Your task to perform on an android device: What's the news this morning? Image 0: 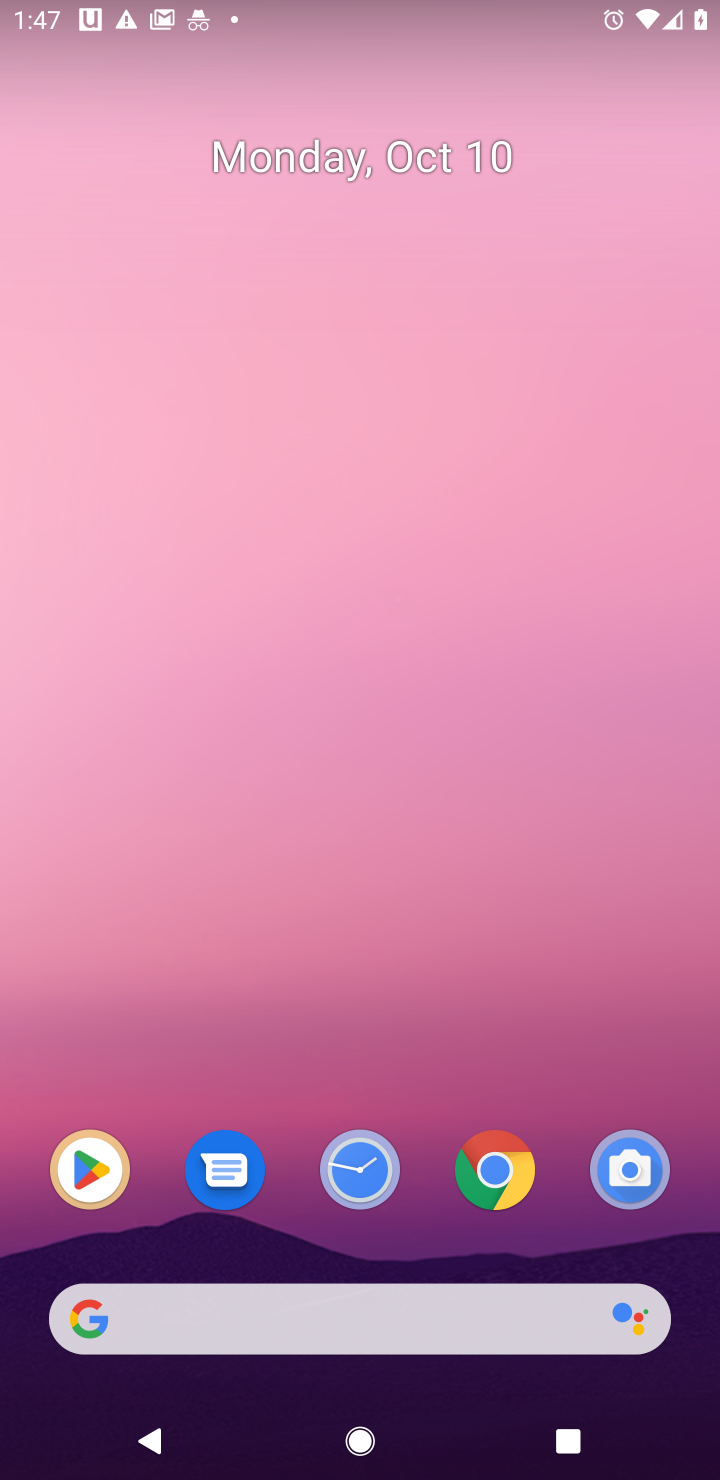
Step 0: click (492, 1176)
Your task to perform on an android device: What's the news this morning? Image 1: 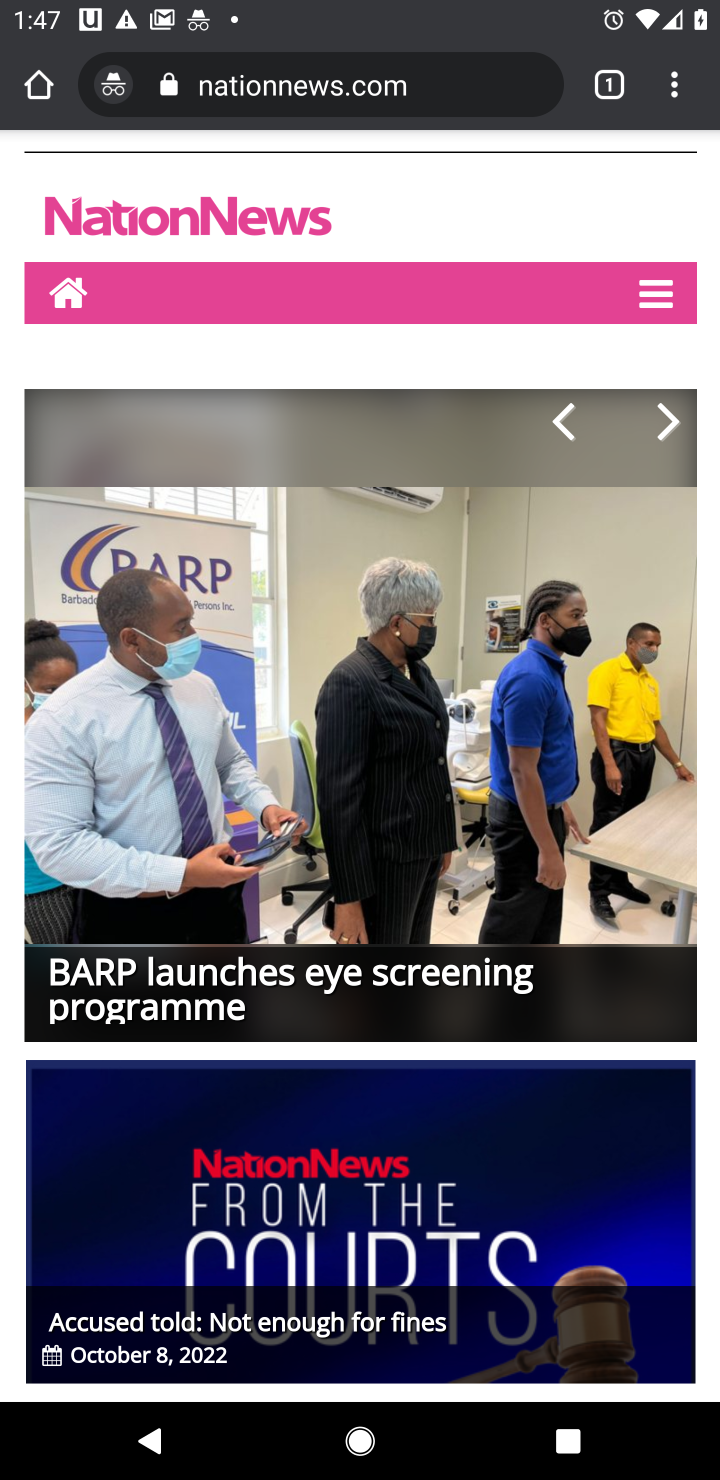
Step 1: click (385, 94)
Your task to perform on an android device: What's the news this morning? Image 2: 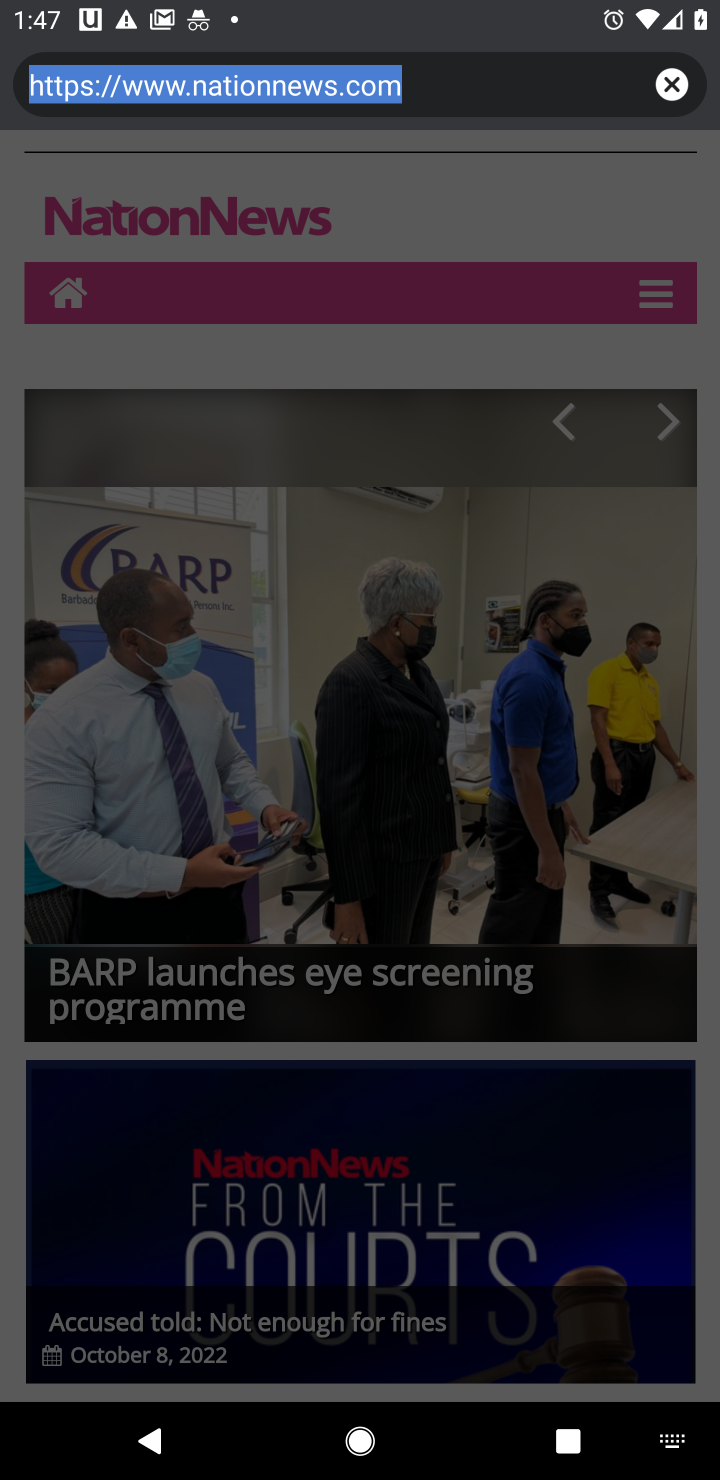
Step 2: click (672, 84)
Your task to perform on an android device: What's the news this morning? Image 3: 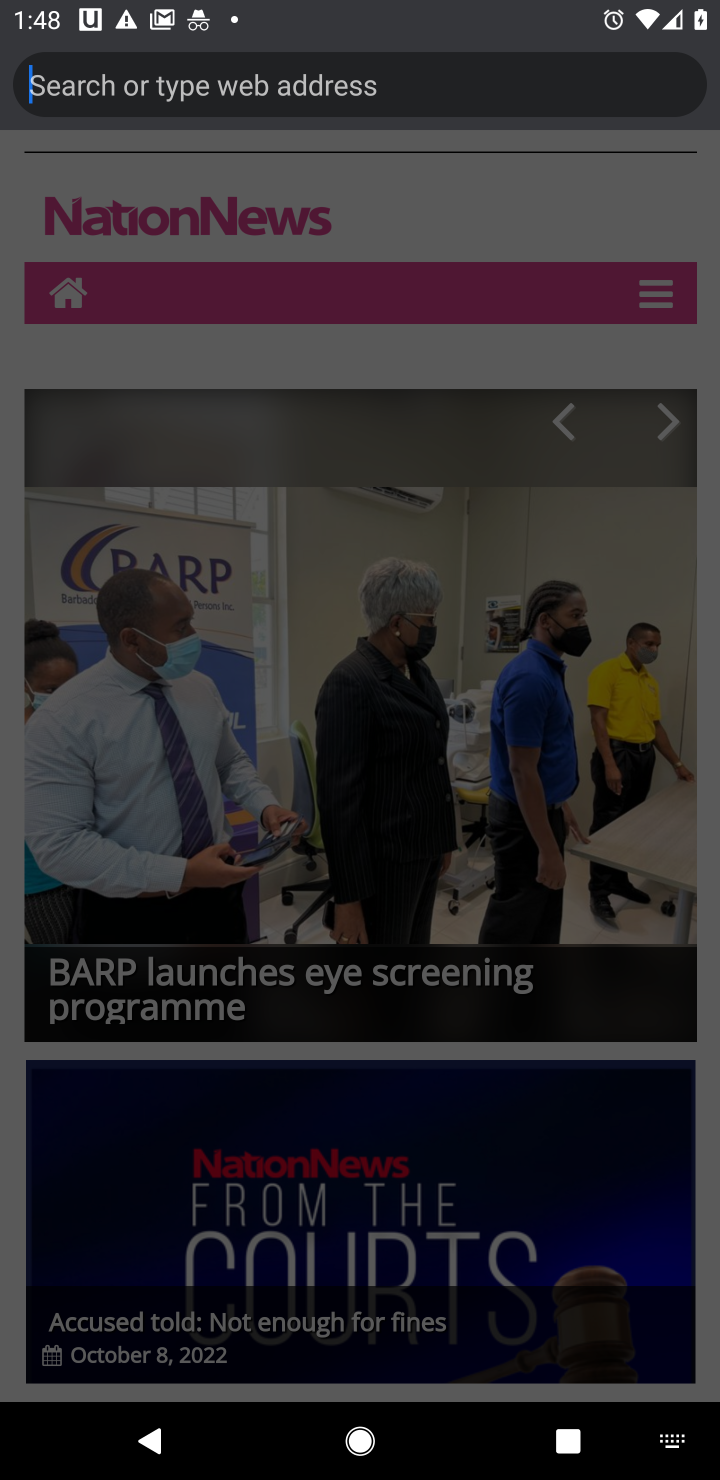
Step 3: type "news this morning"
Your task to perform on an android device: What's the news this morning? Image 4: 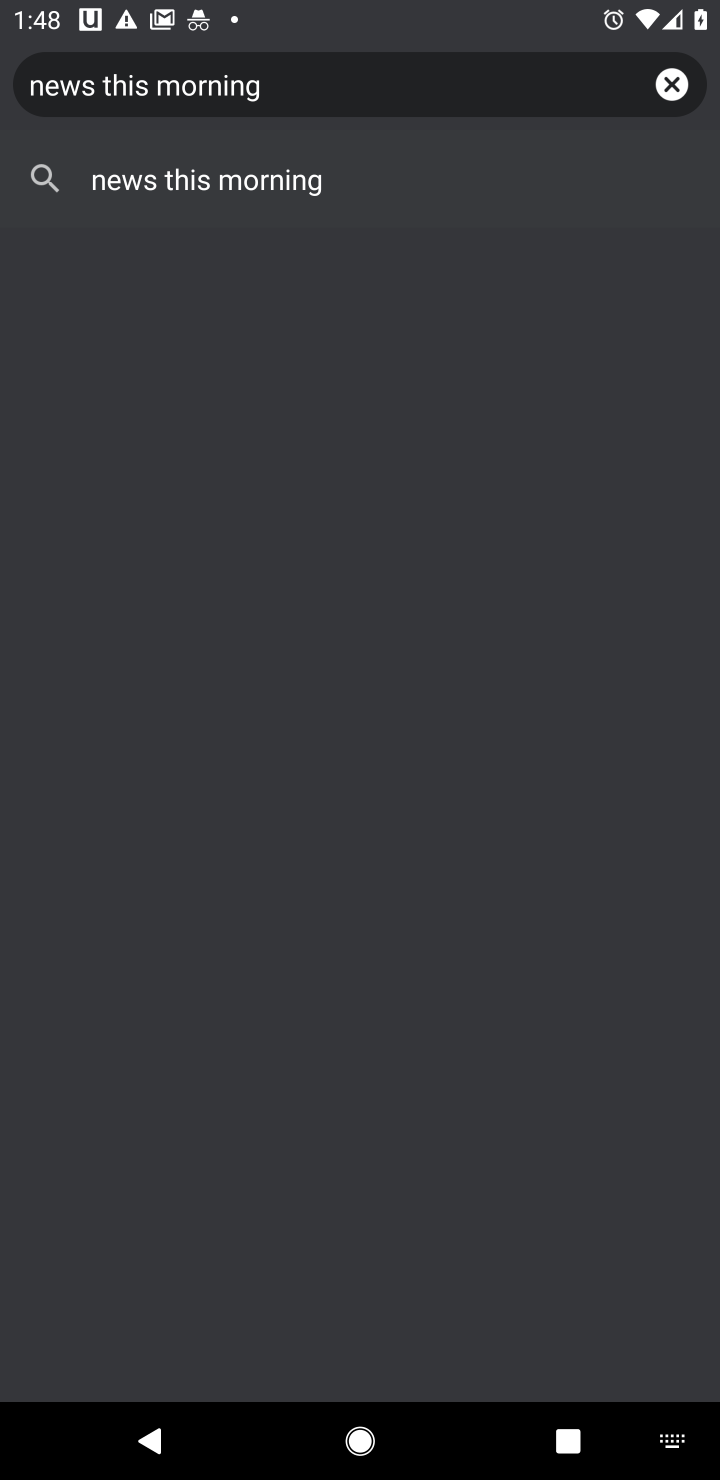
Step 4: click (269, 181)
Your task to perform on an android device: What's the news this morning? Image 5: 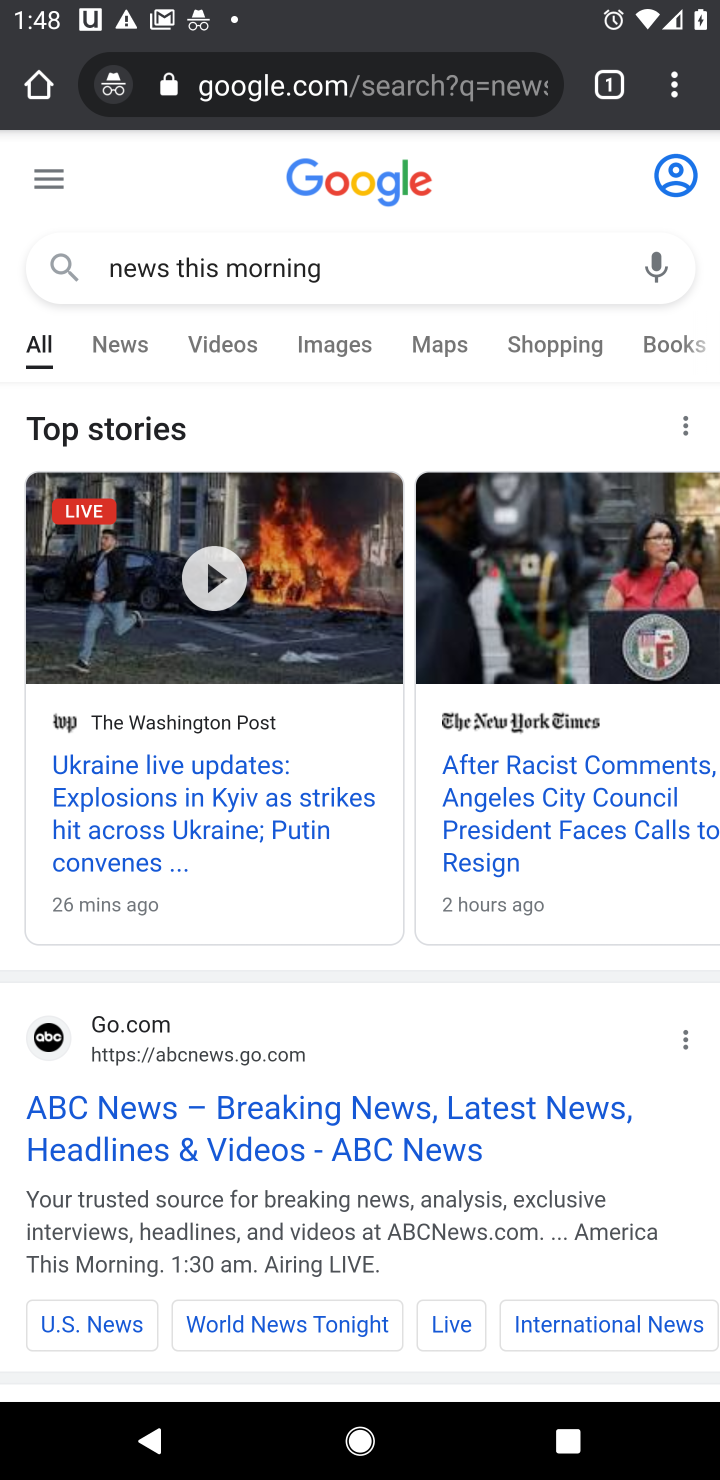
Step 5: click (373, 1152)
Your task to perform on an android device: What's the news this morning? Image 6: 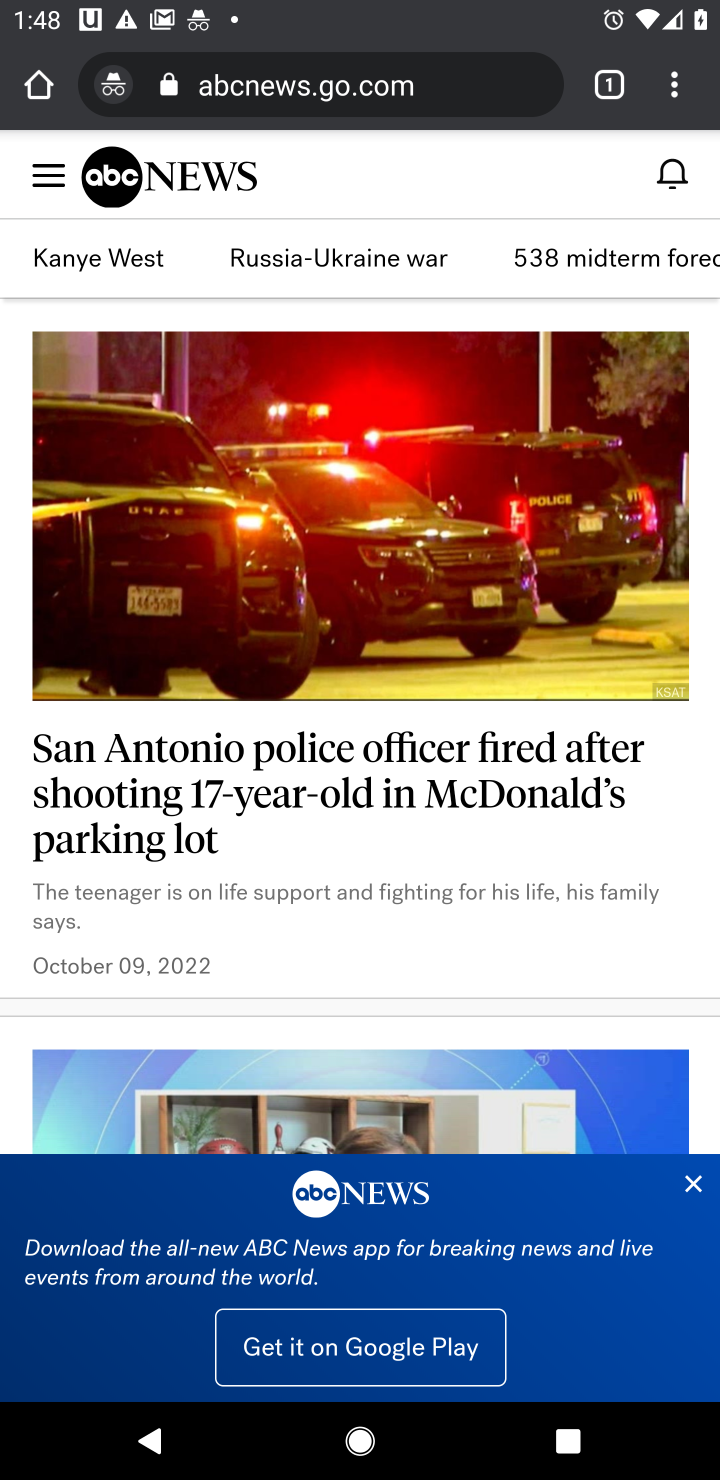
Step 6: task complete